Your task to perform on an android device: Open network settings Image 0: 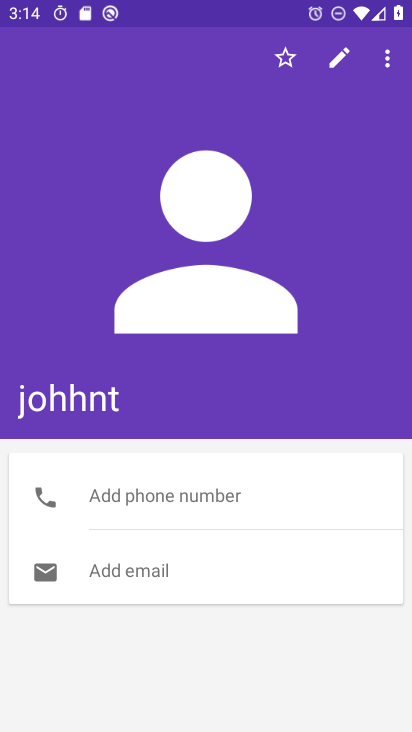
Step 0: press home button
Your task to perform on an android device: Open network settings Image 1: 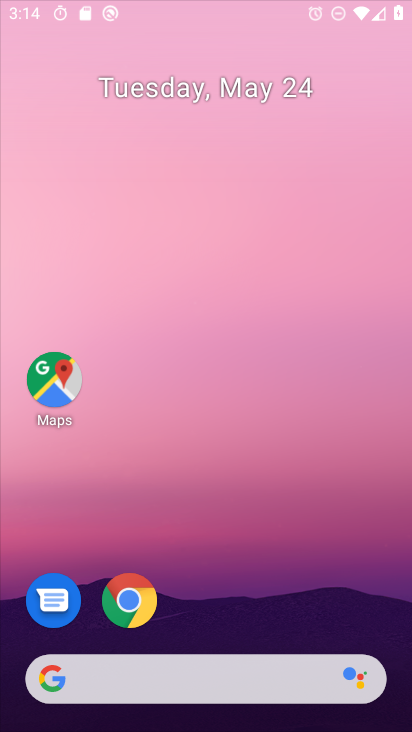
Step 1: drag from (235, 585) to (262, 124)
Your task to perform on an android device: Open network settings Image 2: 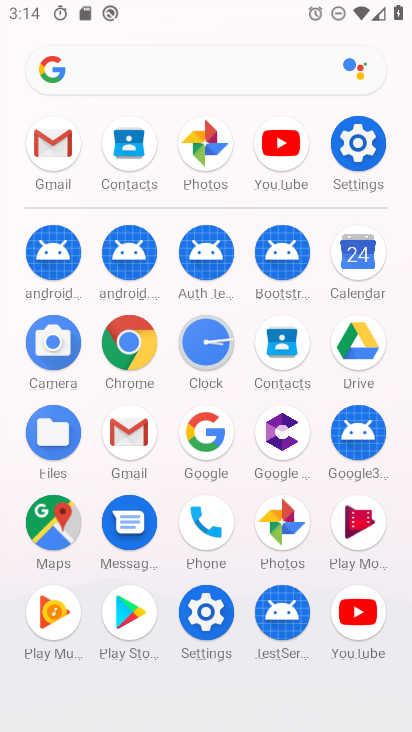
Step 2: click (384, 146)
Your task to perform on an android device: Open network settings Image 3: 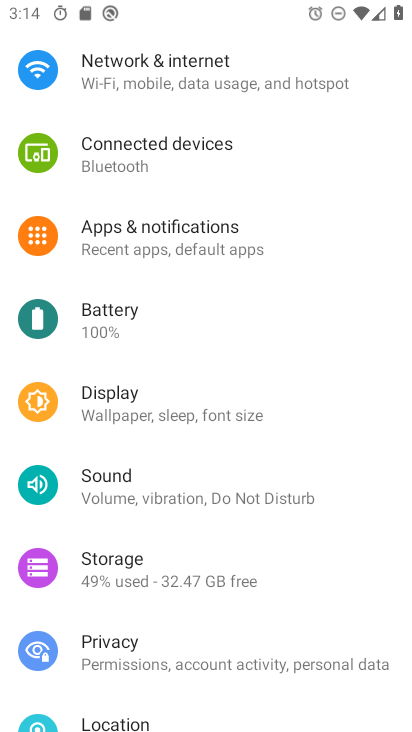
Step 3: click (185, 84)
Your task to perform on an android device: Open network settings Image 4: 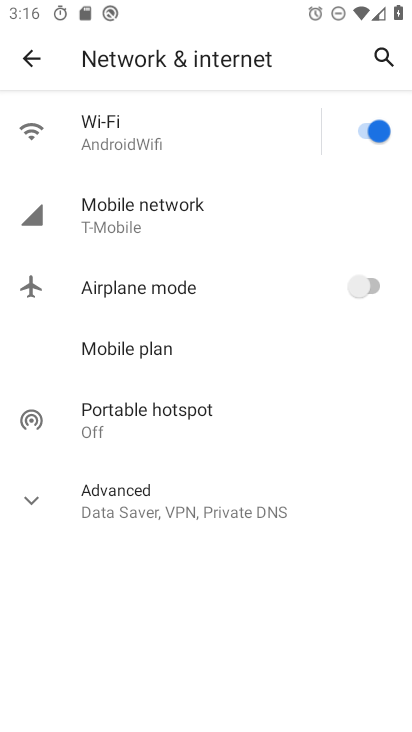
Step 4: task complete